Your task to perform on an android device: Open calendar and show me the first week of next month Image 0: 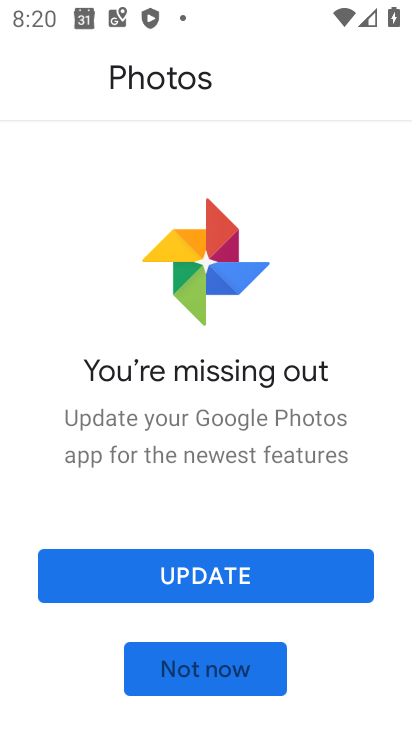
Step 0: press home button
Your task to perform on an android device: Open calendar and show me the first week of next month Image 1: 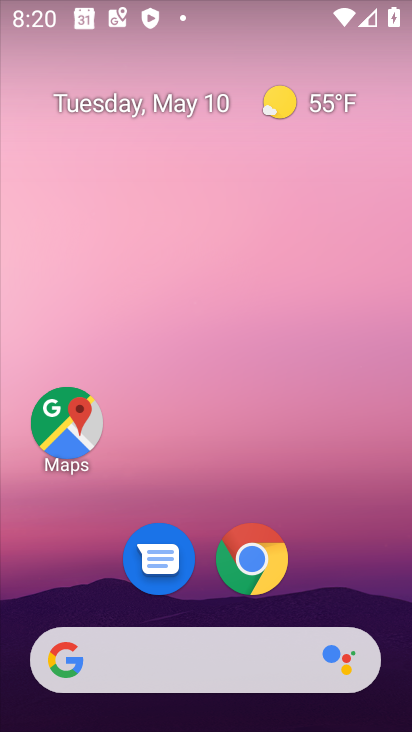
Step 1: drag from (211, 716) to (215, 170)
Your task to perform on an android device: Open calendar and show me the first week of next month Image 2: 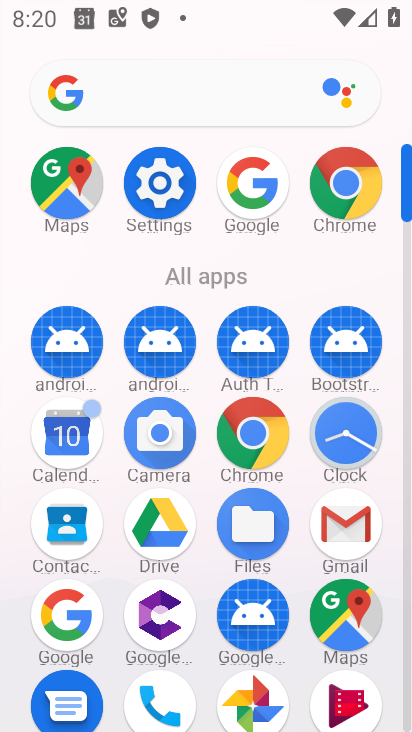
Step 2: click (67, 453)
Your task to perform on an android device: Open calendar and show me the first week of next month Image 3: 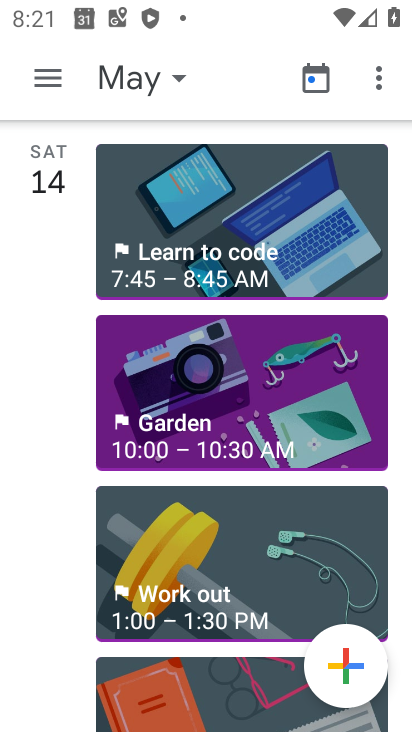
Step 3: click (118, 75)
Your task to perform on an android device: Open calendar and show me the first week of next month Image 4: 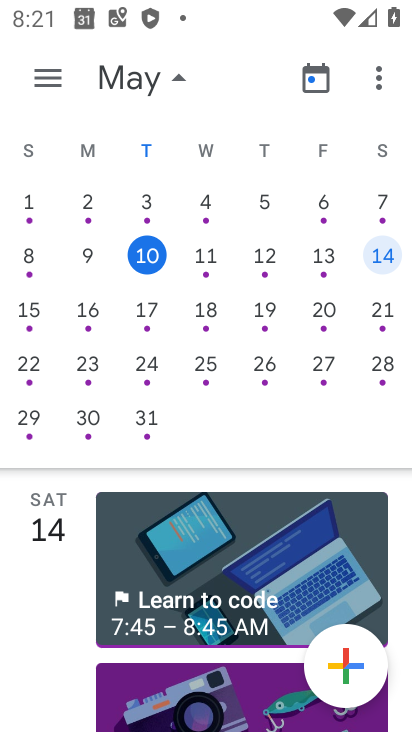
Step 4: drag from (363, 333) to (2, 298)
Your task to perform on an android device: Open calendar and show me the first week of next month Image 5: 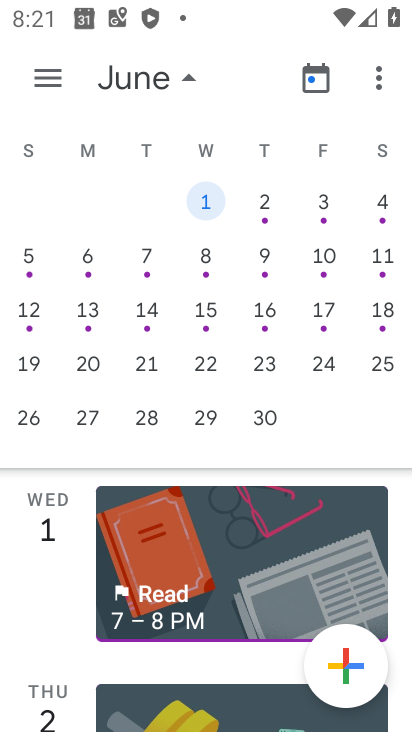
Step 5: click (84, 252)
Your task to perform on an android device: Open calendar and show me the first week of next month Image 6: 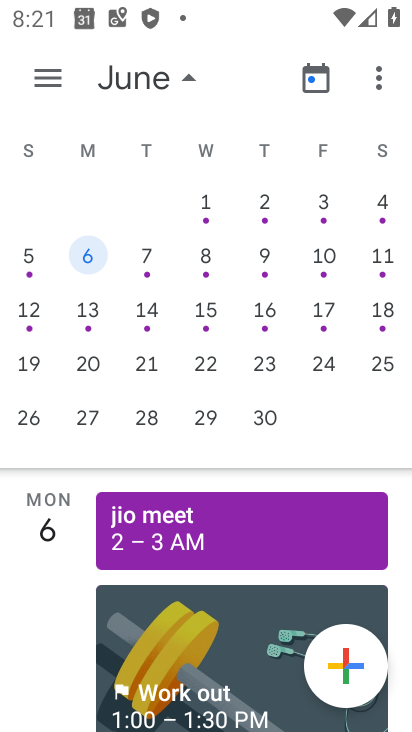
Step 6: click (41, 73)
Your task to perform on an android device: Open calendar and show me the first week of next month Image 7: 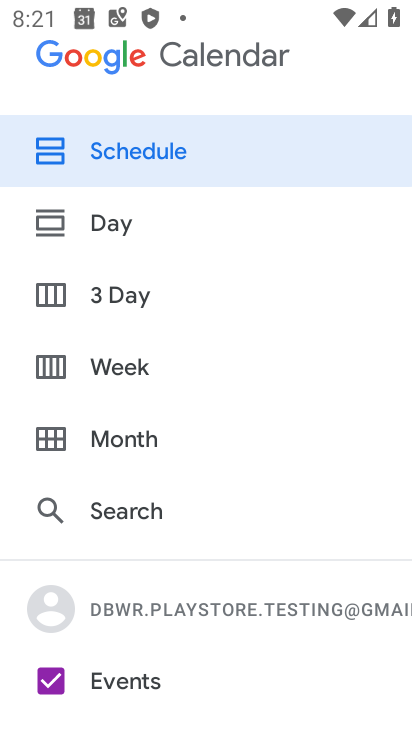
Step 7: click (122, 366)
Your task to perform on an android device: Open calendar and show me the first week of next month Image 8: 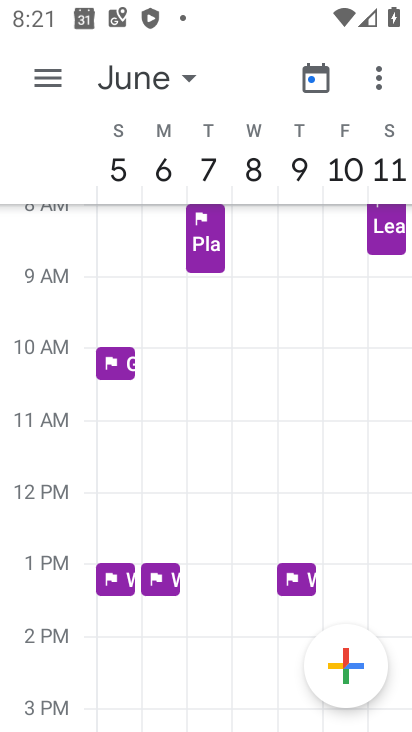
Step 8: task complete